Your task to perform on an android device: check android version Image 0: 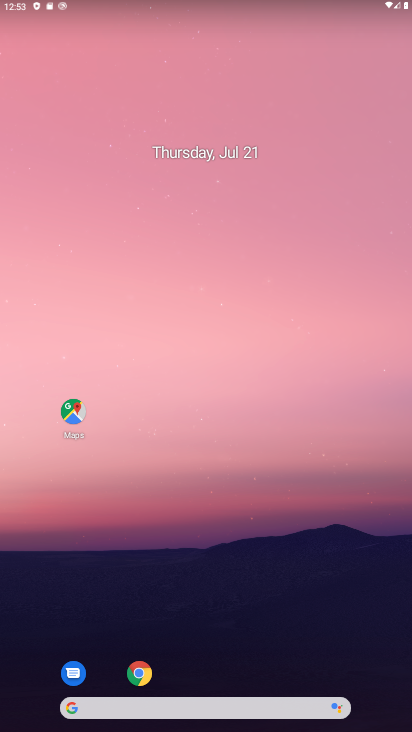
Step 0: drag from (212, 710) to (159, 235)
Your task to perform on an android device: check android version Image 1: 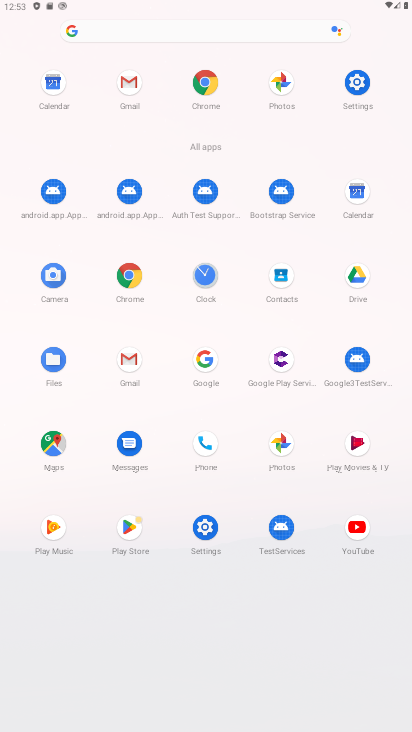
Step 1: click (201, 538)
Your task to perform on an android device: check android version Image 2: 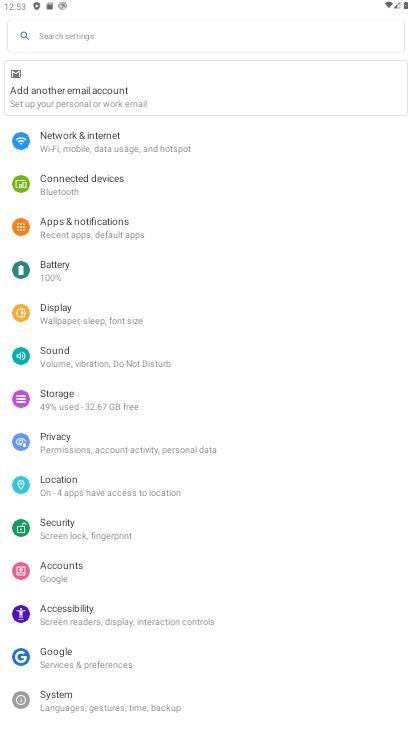
Step 2: drag from (87, 685) to (34, 163)
Your task to perform on an android device: check android version Image 3: 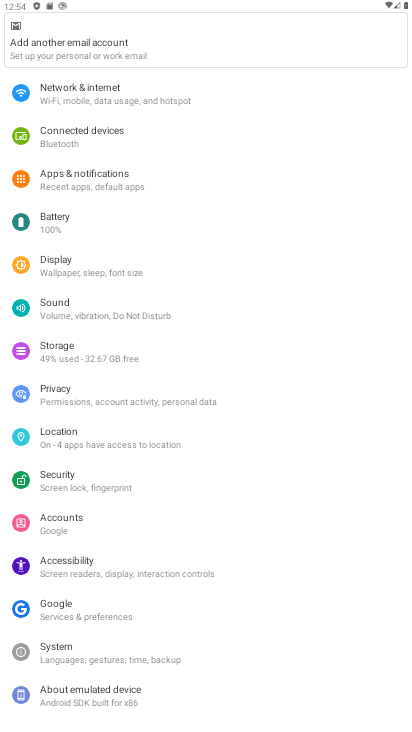
Step 3: click (78, 692)
Your task to perform on an android device: check android version Image 4: 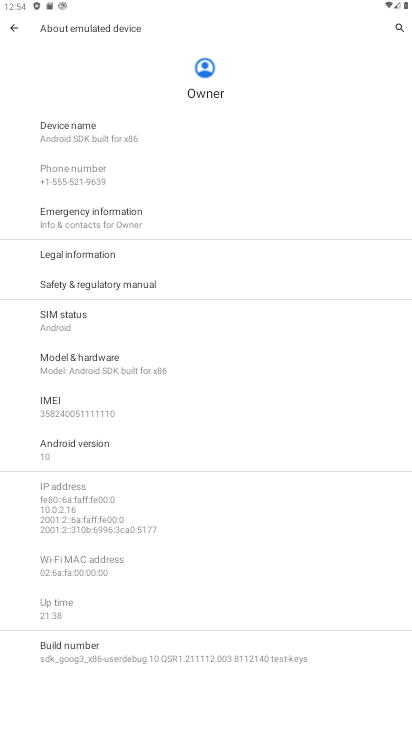
Step 4: click (105, 453)
Your task to perform on an android device: check android version Image 5: 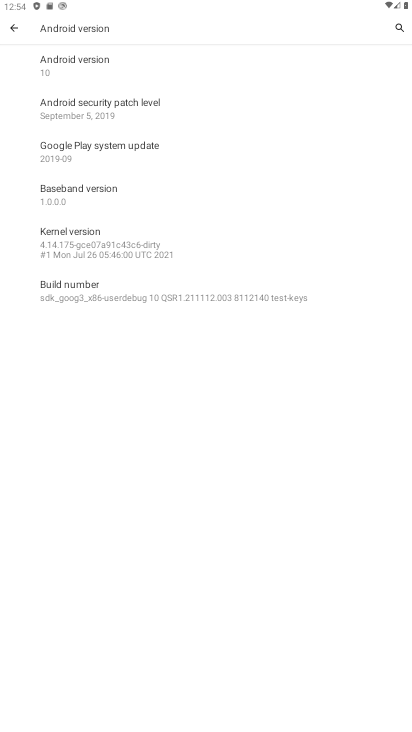
Step 5: task complete